Your task to perform on an android device: Clear the shopping cart on amazon.com. Search for usb-c on amazon.com, select the first entry, add it to the cart, then select checkout. Image 0: 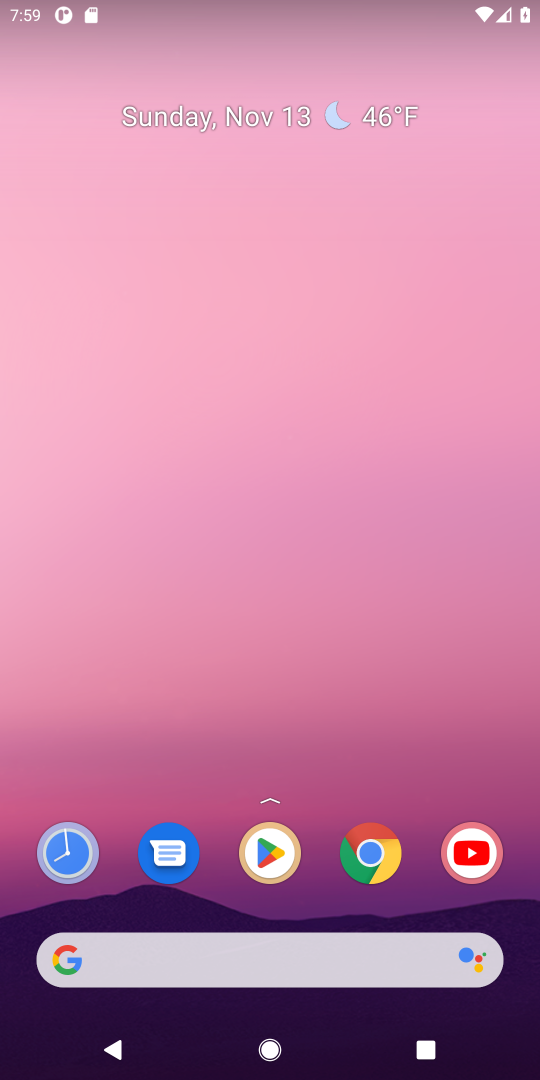
Step 0: press home button
Your task to perform on an android device: Clear the shopping cart on amazon.com. Search for usb-c on amazon.com, select the first entry, add it to the cart, then select checkout. Image 1: 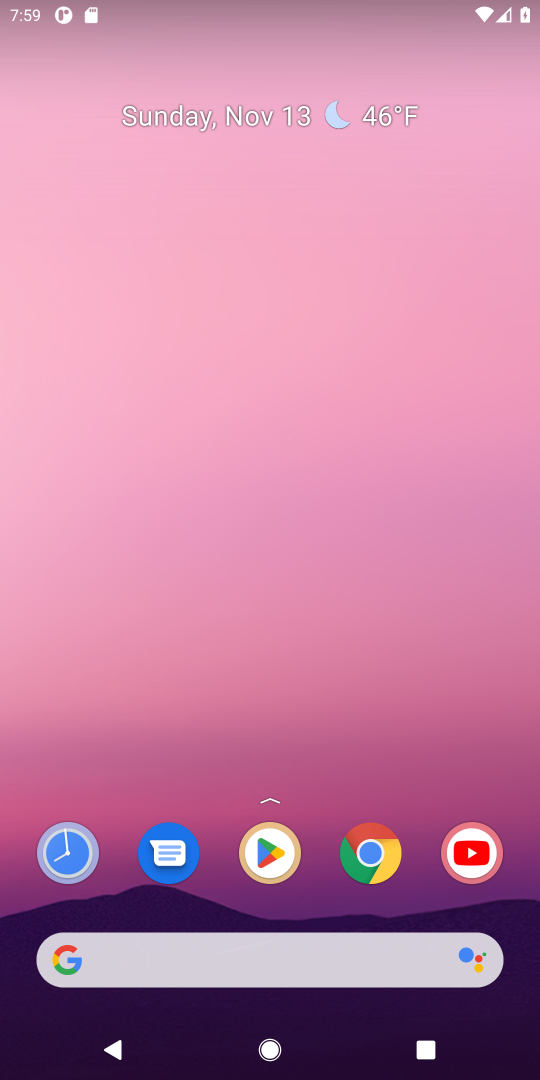
Step 1: click (112, 949)
Your task to perform on an android device: Clear the shopping cart on amazon.com. Search for usb-c on amazon.com, select the first entry, add it to the cart, then select checkout. Image 2: 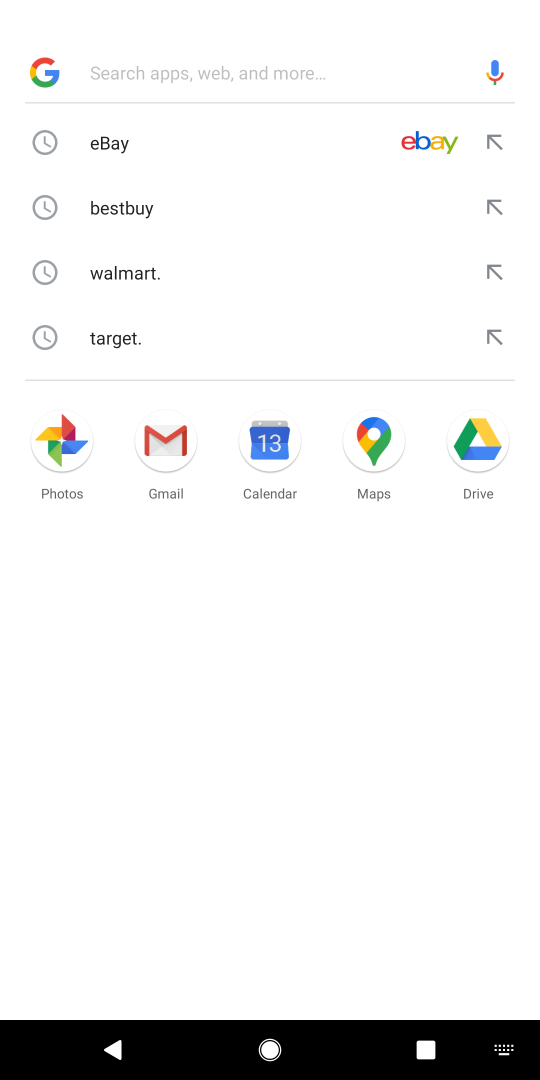
Step 2: type " amazon.com"
Your task to perform on an android device: Clear the shopping cart on amazon.com. Search for usb-c on amazon.com, select the first entry, add it to the cart, then select checkout. Image 3: 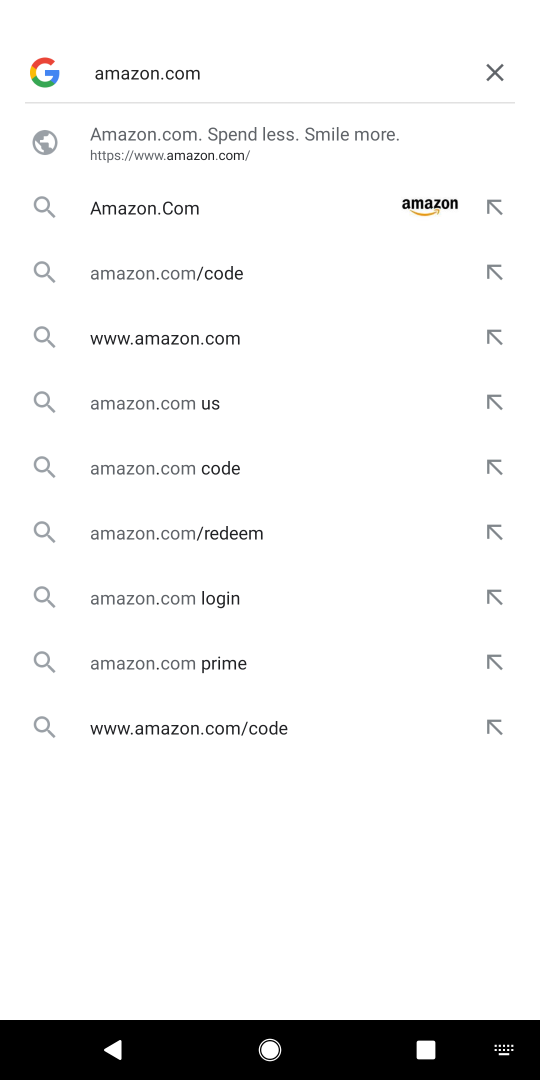
Step 3: press enter
Your task to perform on an android device: Clear the shopping cart on amazon.com. Search for usb-c on amazon.com, select the first entry, add it to the cart, then select checkout. Image 4: 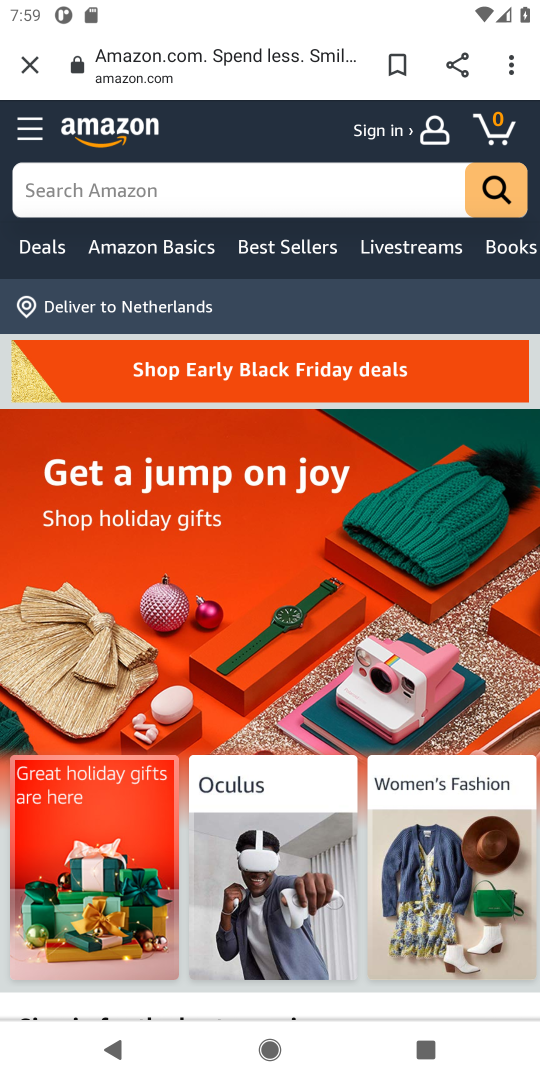
Step 4: click (495, 129)
Your task to perform on an android device: Clear the shopping cart on amazon.com. Search for usb-c on amazon.com, select the first entry, add it to the cart, then select checkout. Image 5: 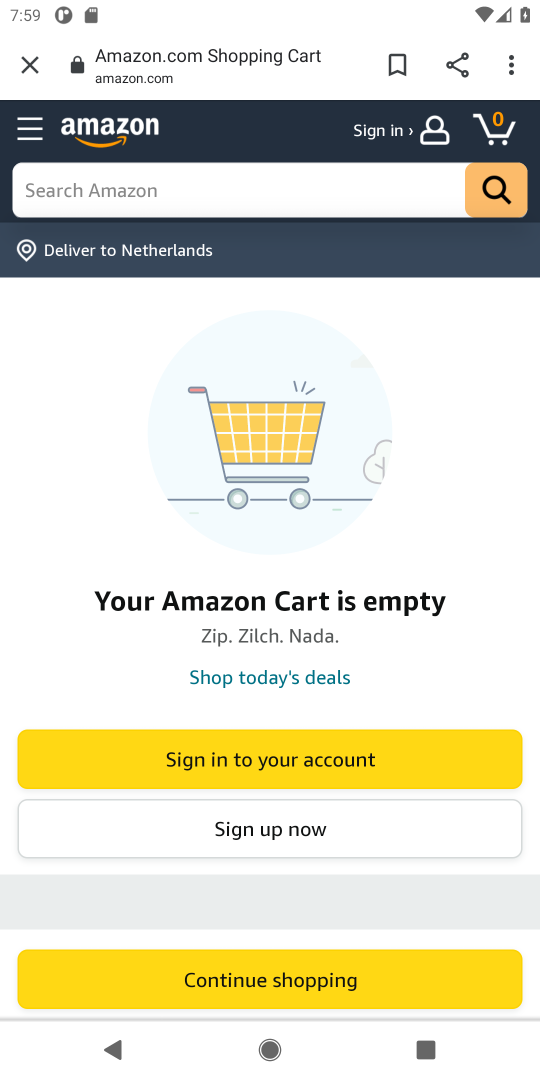
Step 5: click (131, 184)
Your task to perform on an android device: Clear the shopping cart on amazon.com. Search for usb-c on amazon.com, select the first entry, add it to the cart, then select checkout. Image 6: 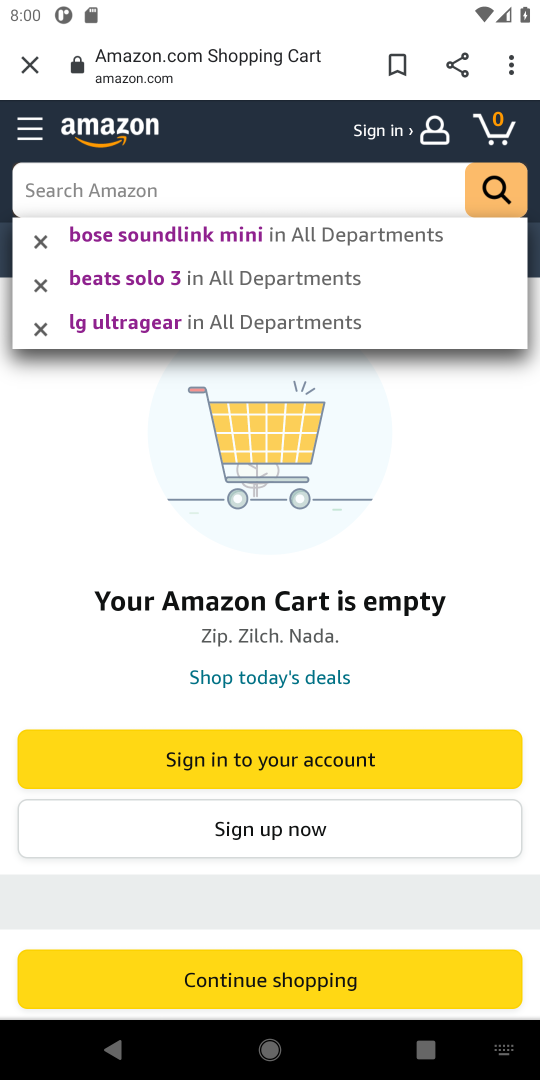
Step 6: type "usb c"
Your task to perform on an android device: Clear the shopping cart on amazon.com. Search for usb-c on amazon.com, select the first entry, add it to the cart, then select checkout. Image 7: 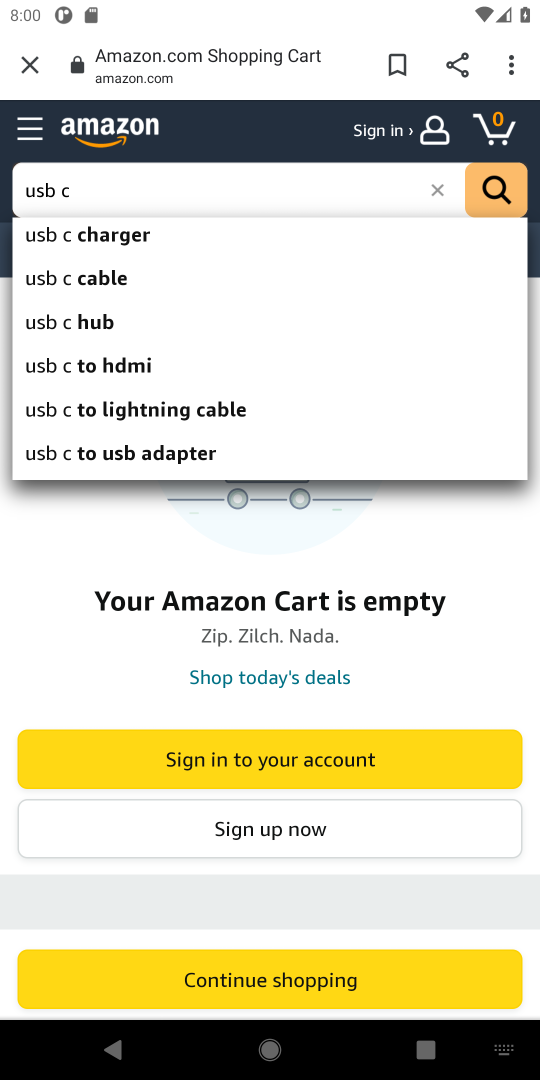
Step 7: click (499, 184)
Your task to perform on an android device: Clear the shopping cart on amazon.com. Search for usb-c on amazon.com, select the first entry, add it to the cart, then select checkout. Image 8: 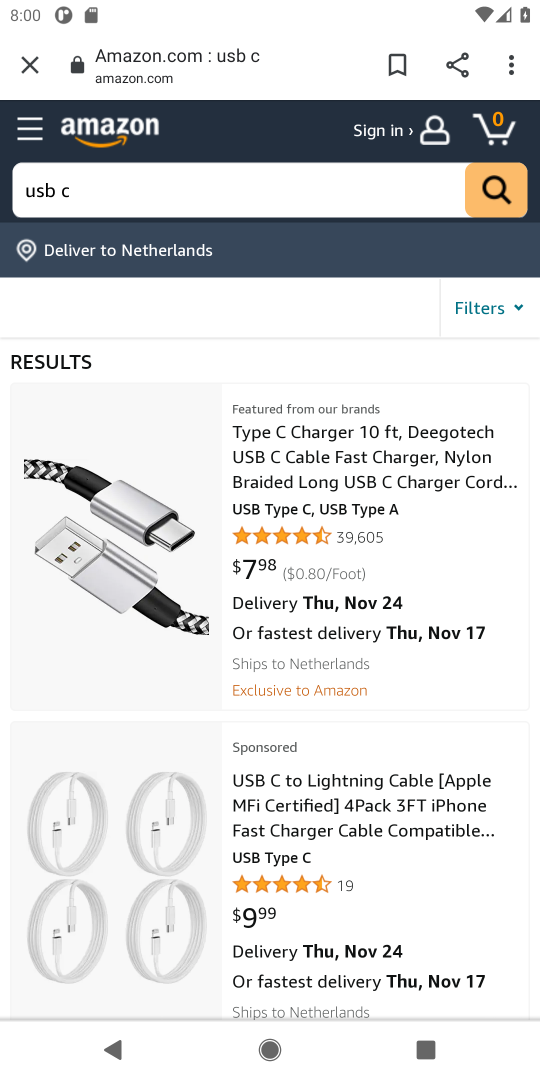
Step 8: click (360, 478)
Your task to perform on an android device: Clear the shopping cart on amazon.com. Search for usb-c on amazon.com, select the first entry, add it to the cart, then select checkout. Image 9: 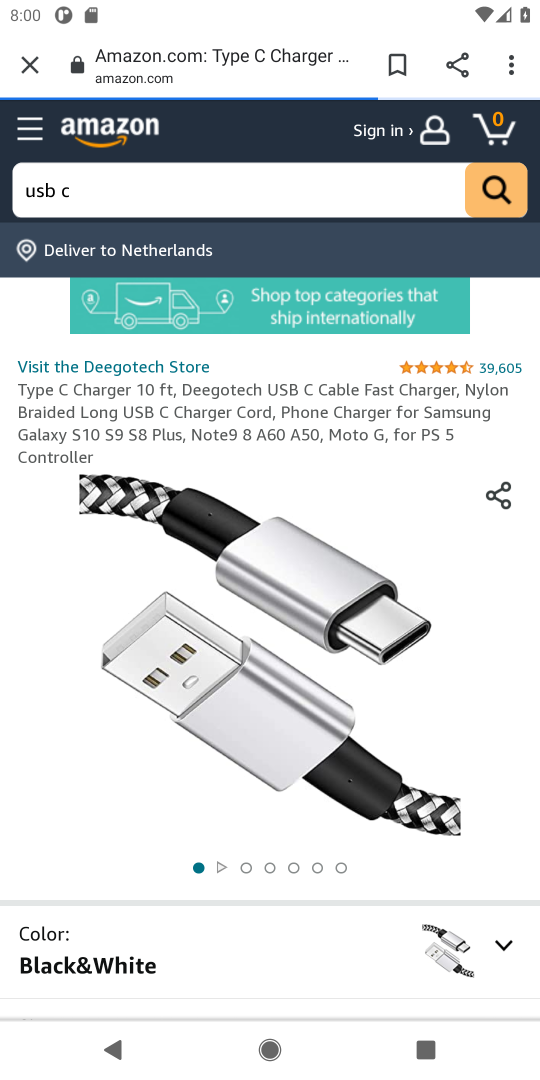
Step 9: drag from (306, 791) to (309, 452)
Your task to perform on an android device: Clear the shopping cart on amazon.com. Search for usb-c on amazon.com, select the first entry, add it to the cart, then select checkout. Image 10: 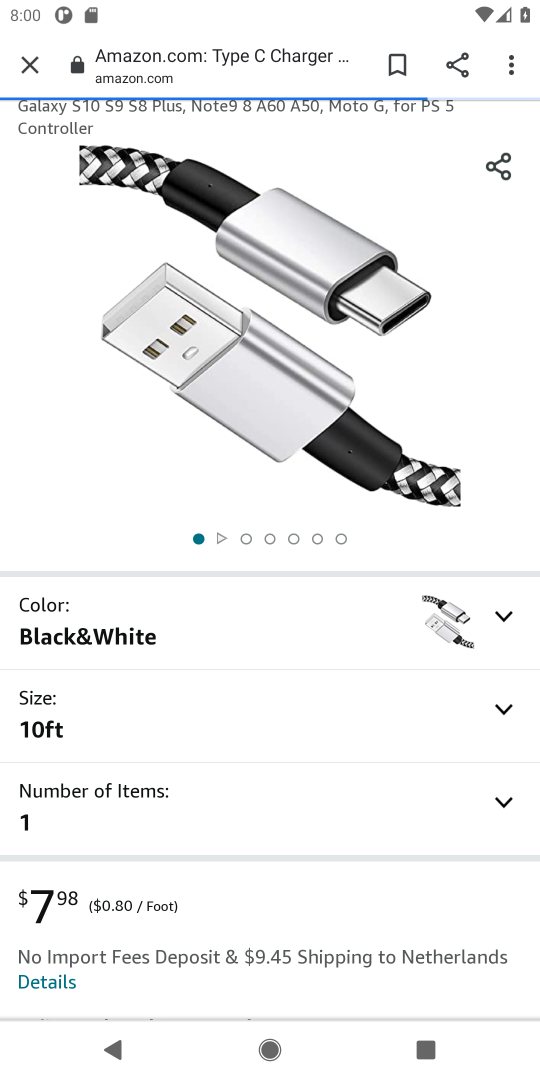
Step 10: drag from (262, 772) to (257, 385)
Your task to perform on an android device: Clear the shopping cart on amazon.com. Search for usb-c on amazon.com, select the first entry, add it to the cart, then select checkout. Image 11: 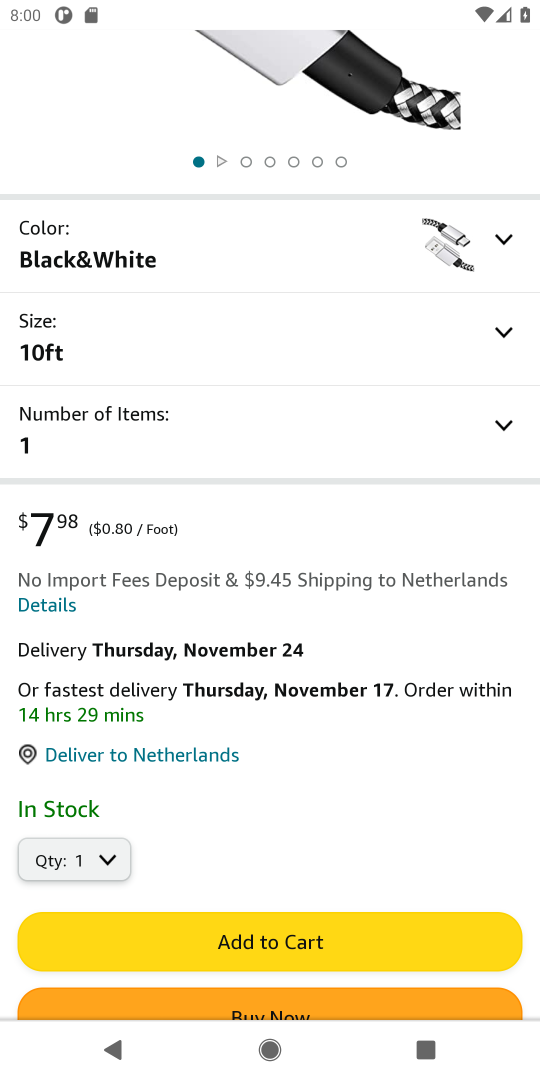
Step 11: drag from (329, 829) to (338, 315)
Your task to perform on an android device: Clear the shopping cart on amazon.com. Search for usb-c on amazon.com, select the first entry, add it to the cart, then select checkout. Image 12: 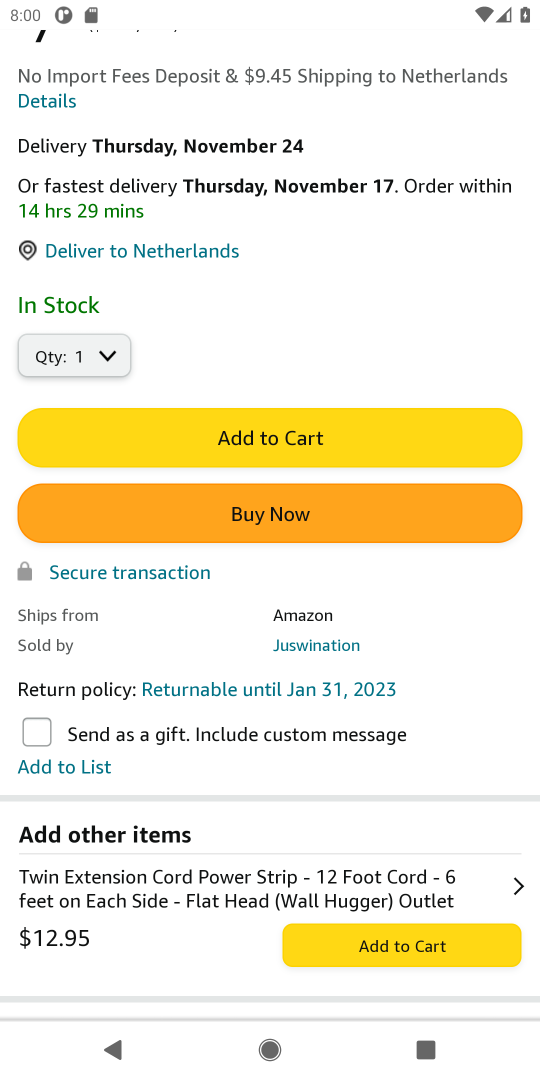
Step 12: click (253, 440)
Your task to perform on an android device: Clear the shopping cart on amazon.com. Search for usb-c on amazon.com, select the first entry, add it to the cart, then select checkout. Image 13: 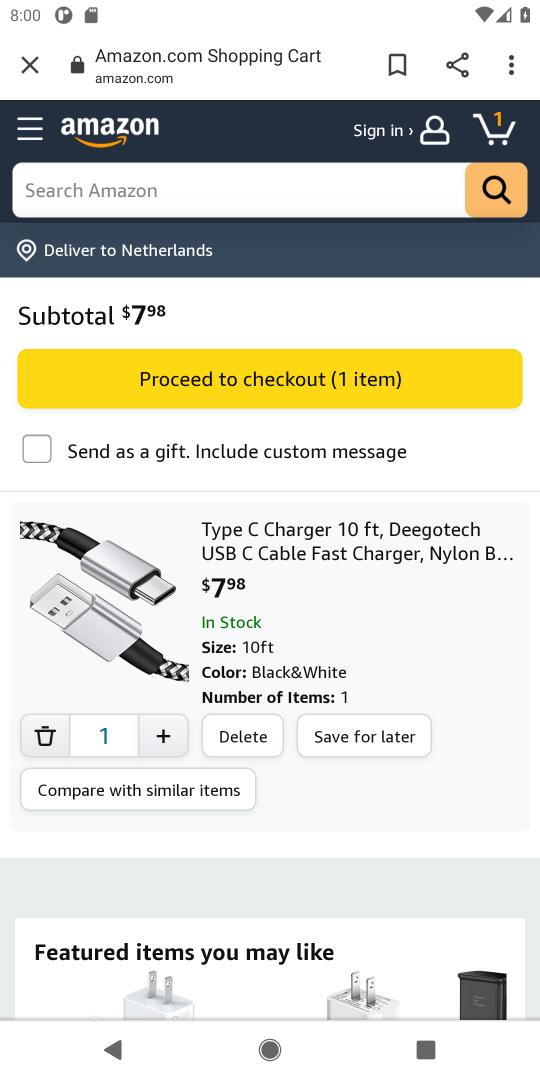
Step 13: task complete